Your task to perform on an android device: Add "usb-c to usb-b" to the cart on walmart, then select checkout. Image 0: 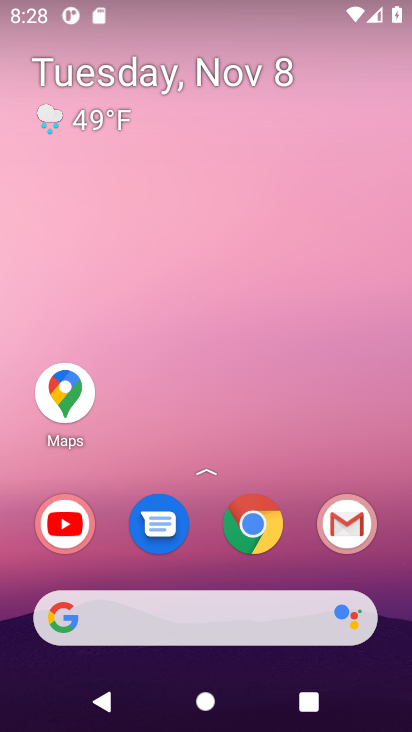
Step 0: click (256, 529)
Your task to perform on an android device: Add "usb-c to usb-b" to the cart on walmart, then select checkout. Image 1: 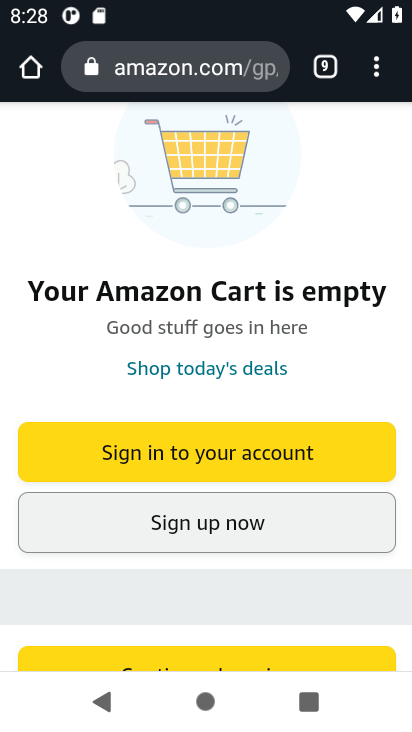
Step 1: click (187, 78)
Your task to perform on an android device: Add "usb-c to usb-b" to the cart on walmart, then select checkout. Image 2: 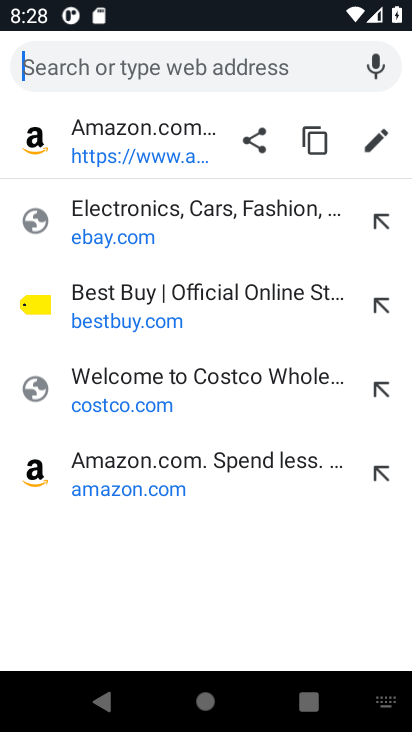
Step 2: type "walmart.com"
Your task to perform on an android device: Add "usb-c to usb-b" to the cart on walmart, then select checkout. Image 3: 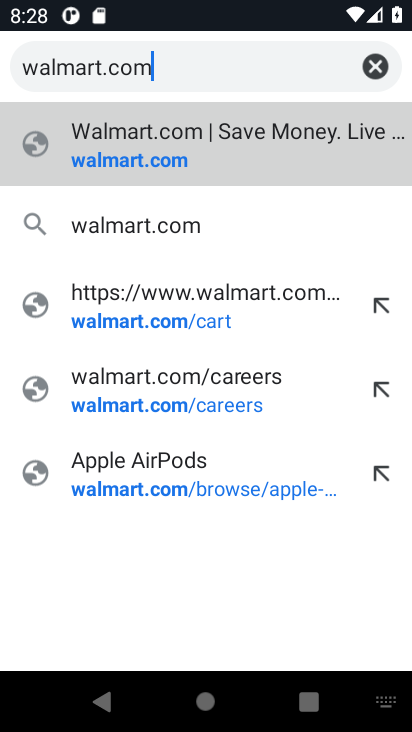
Step 3: click (132, 163)
Your task to perform on an android device: Add "usb-c to usb-b" to the cart on walmart, then select checkout. Image 4: 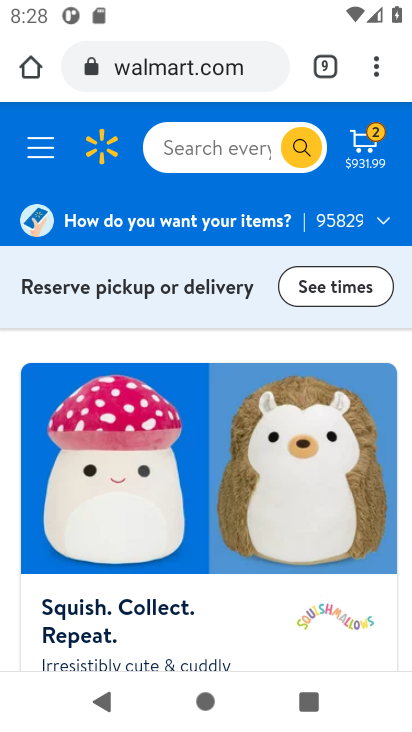
Step 4: click (215, 155)
Your task to perform on an android device: Add "usb-c to usb-b" to the cart on walmart, then select checkout. Image 5: 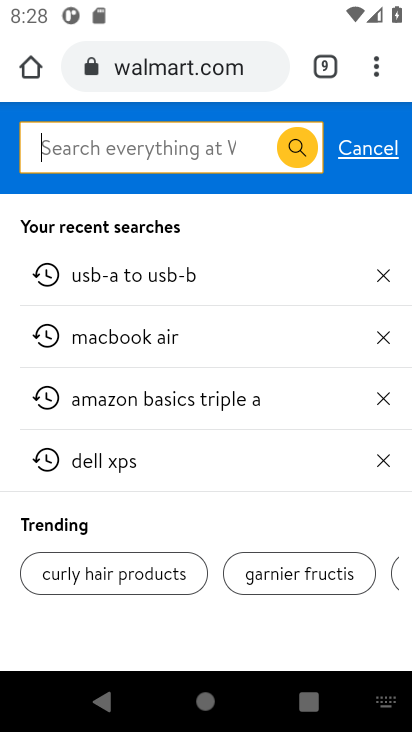
Step 5: type "usb-c to usb-b"
Your task to perform on an android device: Add "usb-c to usb-b" to the cart on walmart, then select checkout. Image 6: 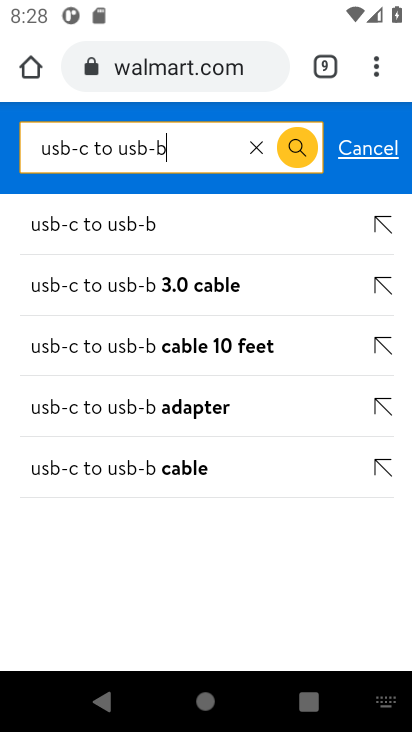
Step 6: click (119, 227)
Your task to perform on an android device: Add "usb-c to usb-b" to the cart on walmart, then select checkout. Image 7: 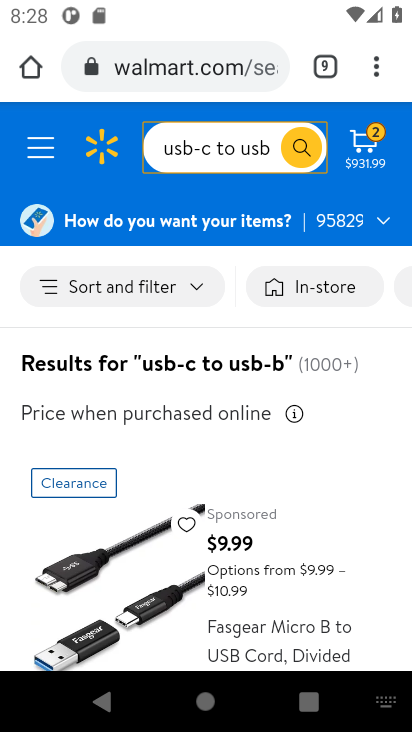
Step 7: drag from (173, 457) to (175, 232)
Your task to perform on an android device: Add "usb-c to usb-b" to the cart on walmart, then select checkout. Image 8: 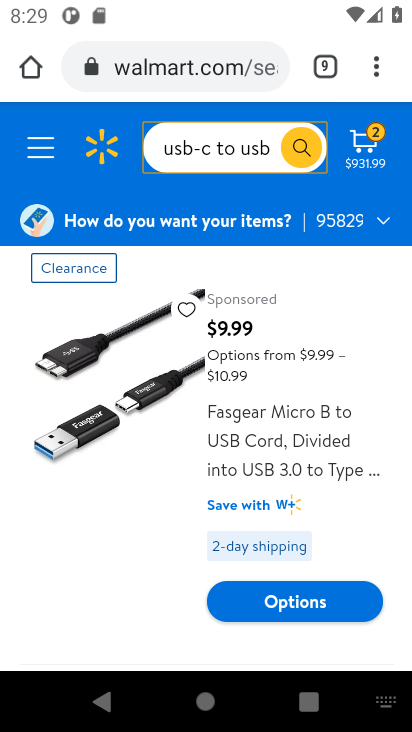
Step 8: click (141, 446)
Your task to perform on an android device: Add "usb-c to usb-b" to the cart on walmart, then select checkout. Image 9: 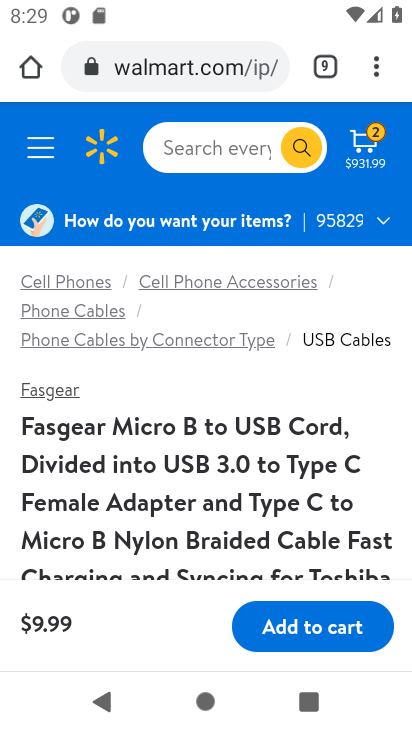
Step 9: drag from (198, 517) to (224, 352)
Your task to perform on an android device: Add "usb-c to usb-b" to the cart on walmart, then select checkout. Image 10: 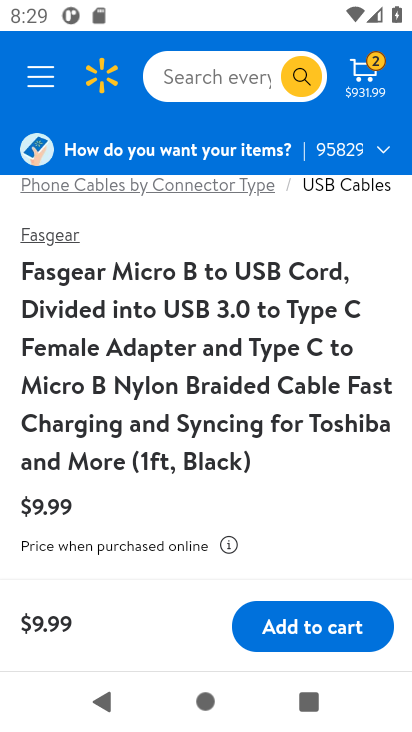
Step 10: press back button
Your task to perform on an android device: Add "usb-c to usb-b" to the cart on walmart, then select checkout. Image 11: 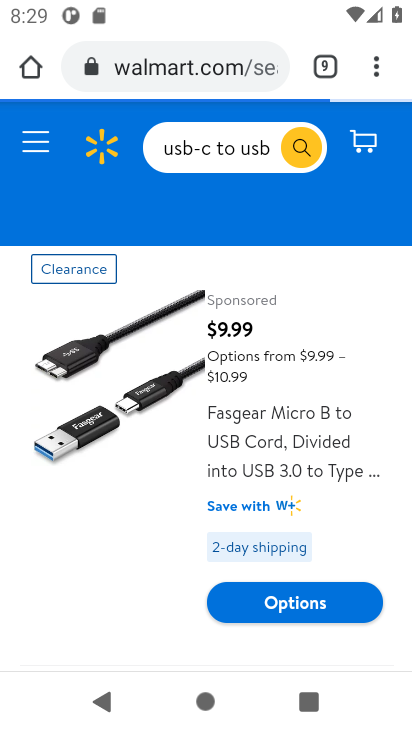
Step 11: drag from (211, 522) to (225, 235)
Your task to perform on an android device: Add "usb-c to usb-b" to the cart on walmart, then select checkout. Image 12: 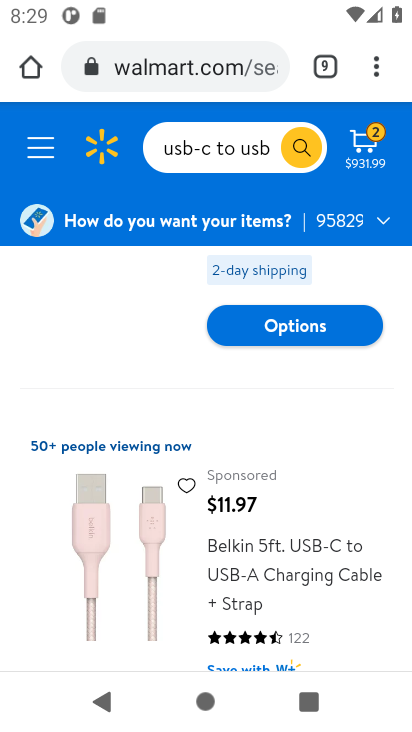
Step 12: drag from (171, 572) to (179, 358)
Your task to perform on an android device: Add "usb-c to usb-b" to the cart on walmart, then select checkout. Image 13: 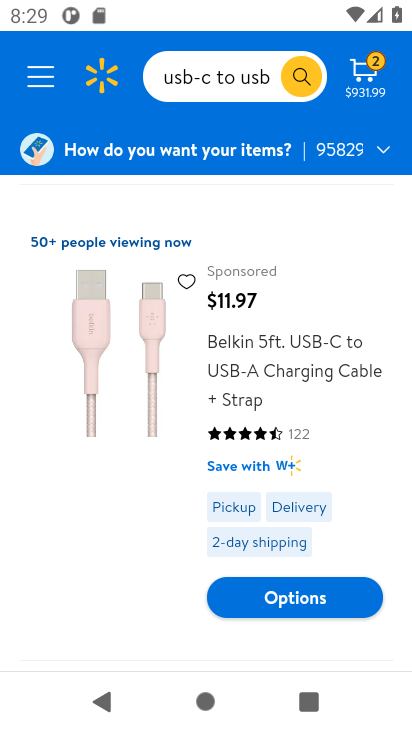
Step 13: click (162, 356)
Your task to perform on an android device: Add "usb-c to usb-b" to the cart on walmart, then select checkout. Image 14: 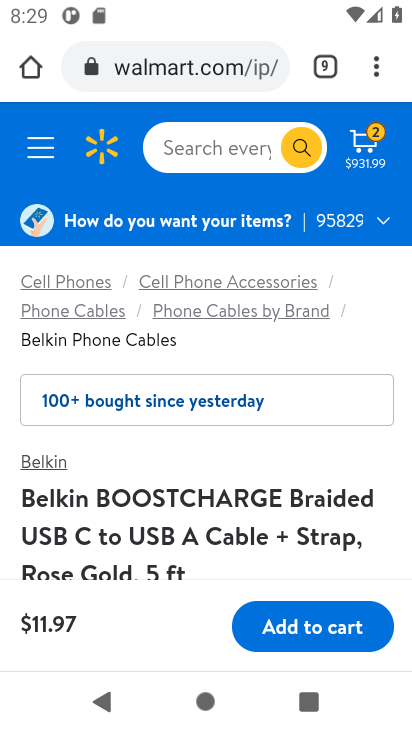
Step 14: click (303, 635)
Your task to perform on an android device: Add "usb-c to usb-b" to the cart on walmart, then select checkout. Image 15: 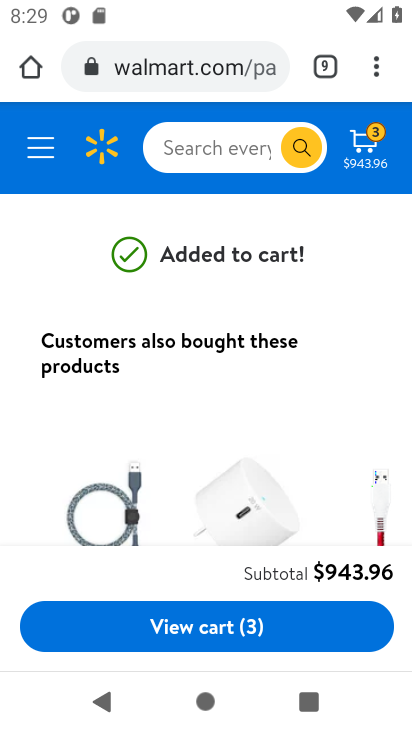
Step 15: click (211, 628)
Your task to perform on an android device: Add "usb-c to usb-b" to the cart on walmart, then select checkout. Image 16: 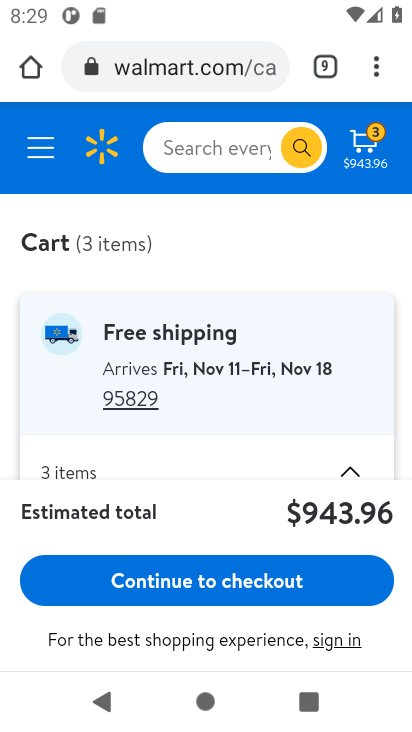
Step 16: click (205, 592)
Your task to perform on an android device: Add "usb-c to usb-b" to the cart on walmart, then select checkout. Image 17: 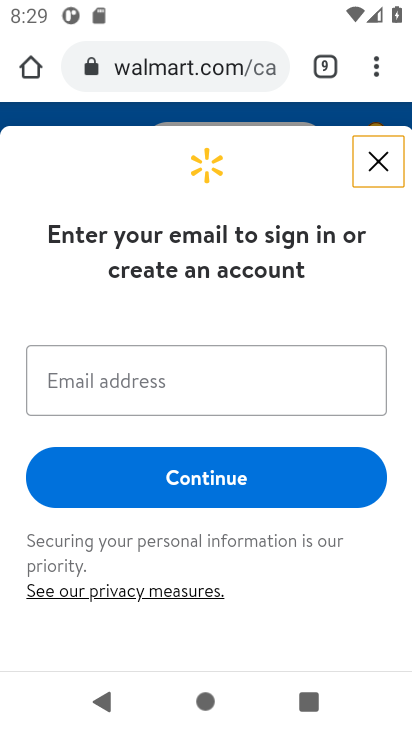
Step 17: task complete